Your task to perform on an android device: Open maps Image 0: 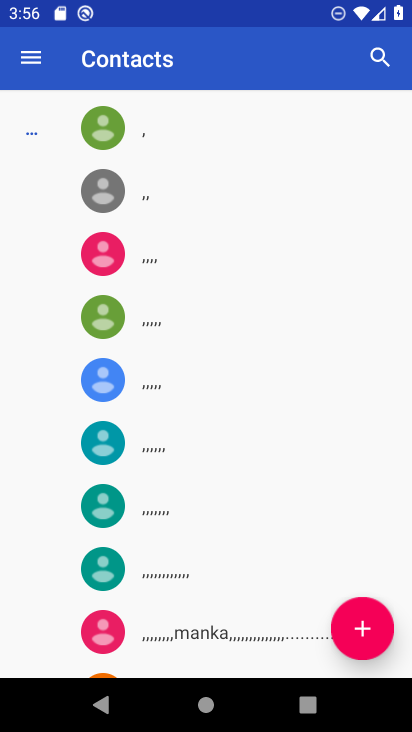
Step 0: press home button
Your task to perform on an android device: Open maps Image 1: 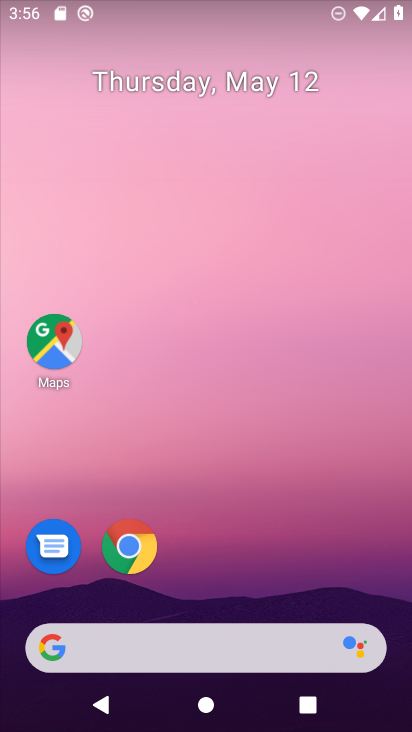
Step 1: click (55, 321)
Your task to perform on an android device: Open maps Image 2: 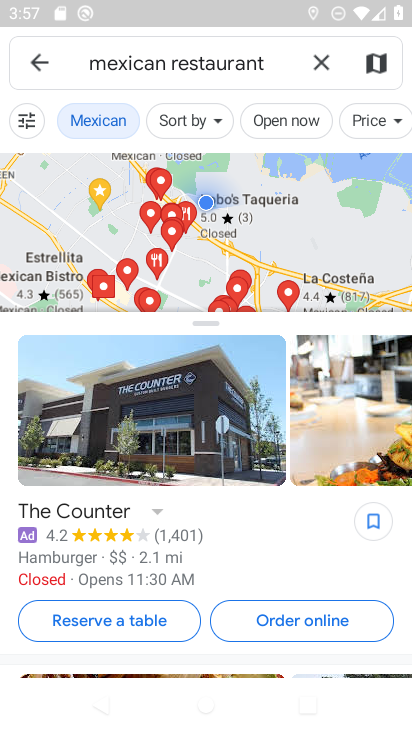
Step 2: task complete